Your task to perform on an android device: What is the news today? Image 0: 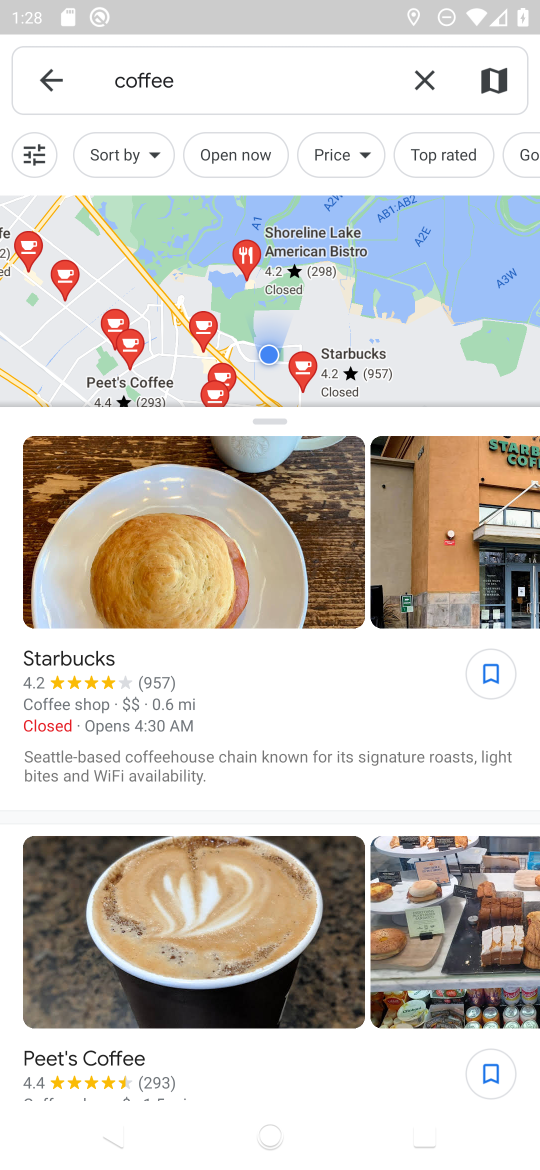
Step 0: press back button
Your task to perform on an android device: What is the news today? Image 1: 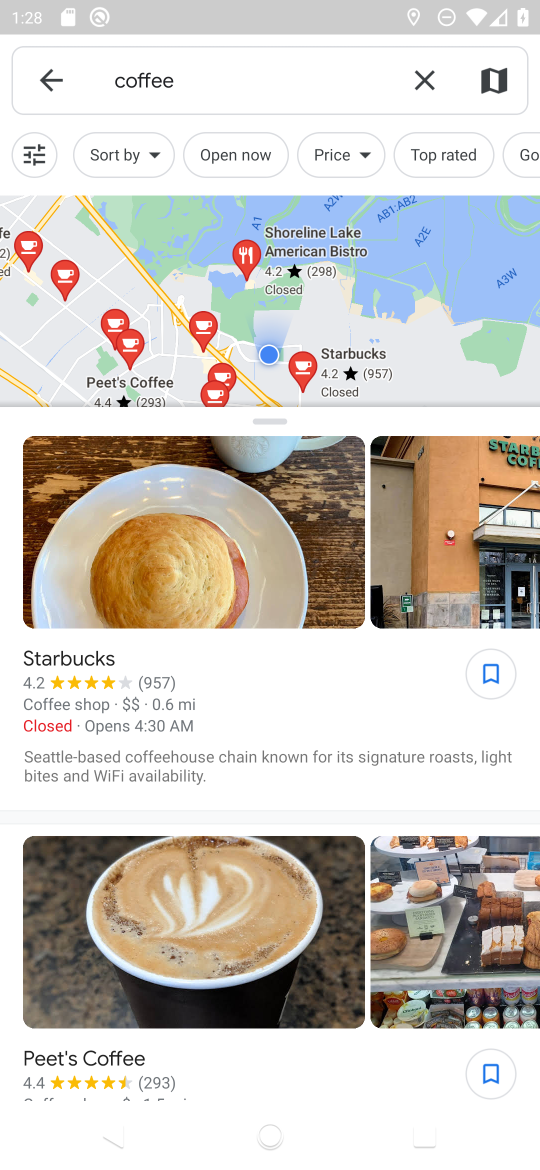
Step 1: press home button
Your task to perform on an android device: What is the news today? Image 2: 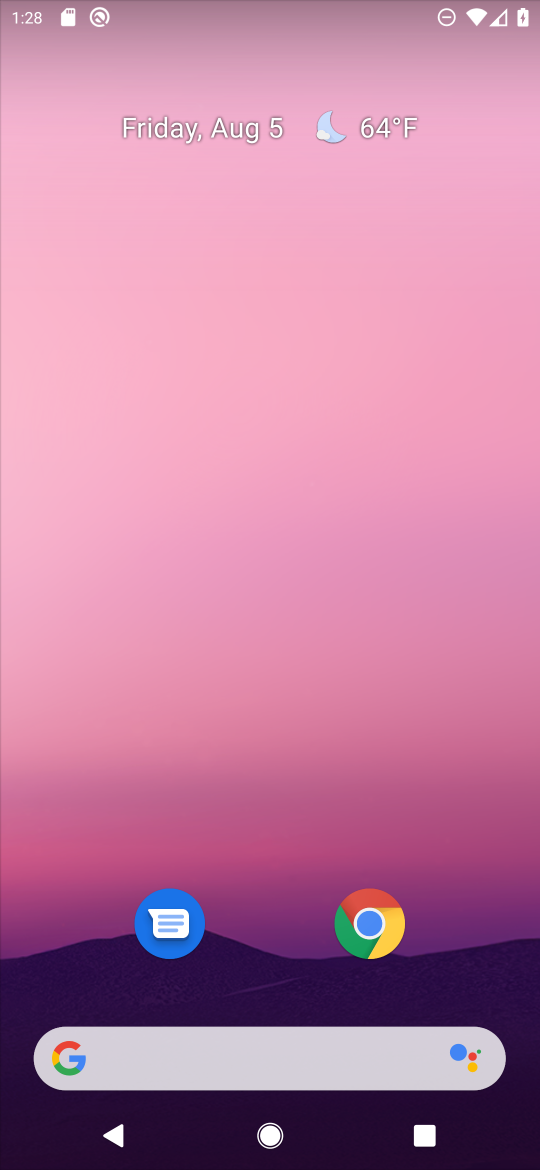
Step 2: drag from (296, 967) to (502, 39)
Your task to perform on an android device: What is the news today? Image 3: 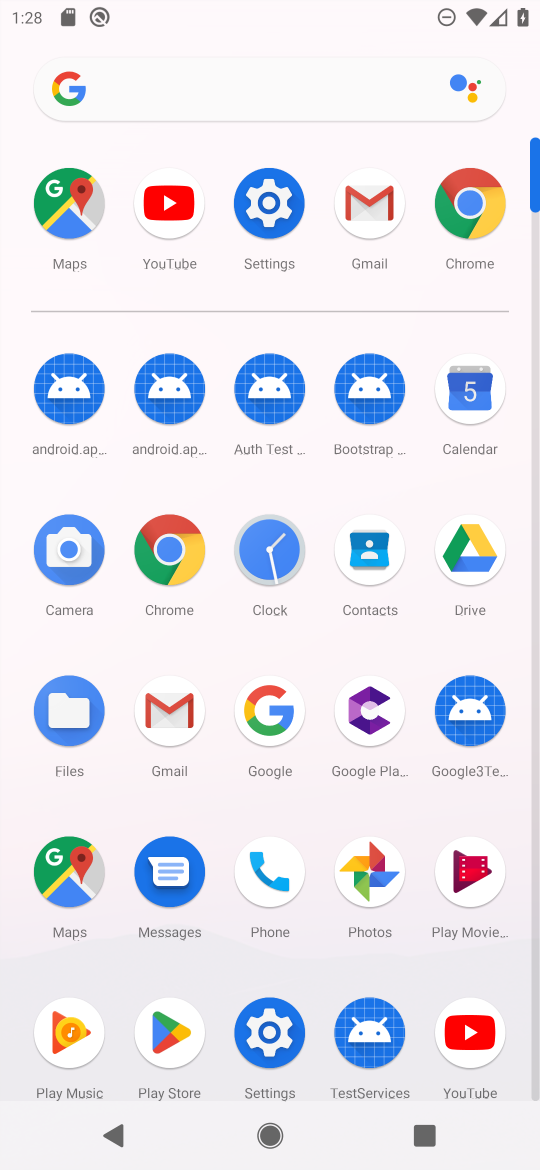
Step 3: click (263, 732)
Your task to perform on an android device: What is the news today? Image 4: 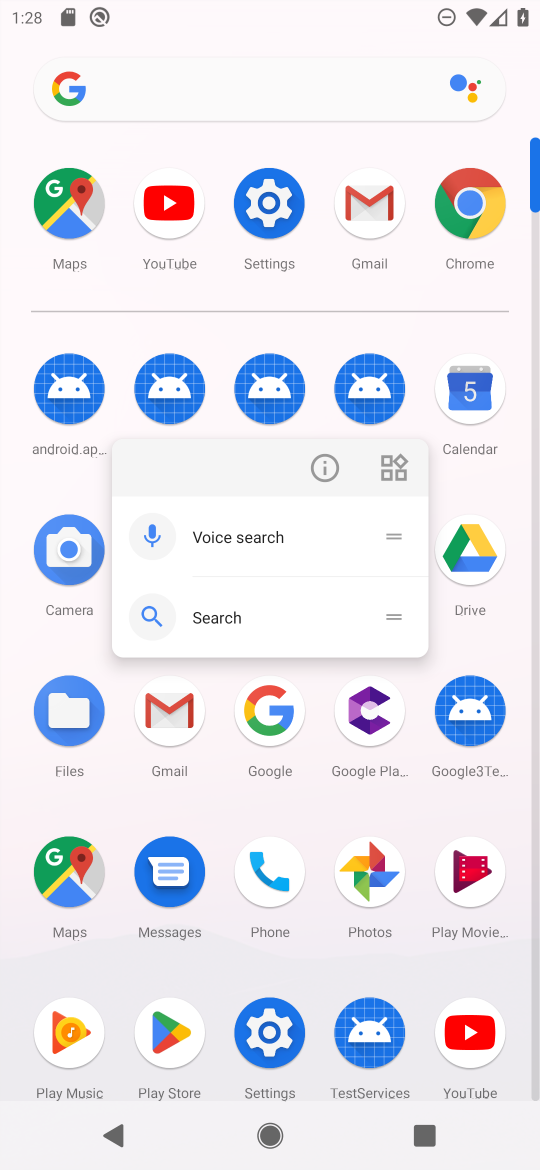
Step 4: click (240, 727)
Your task to perform on an android device: What is the news today? Image 5: 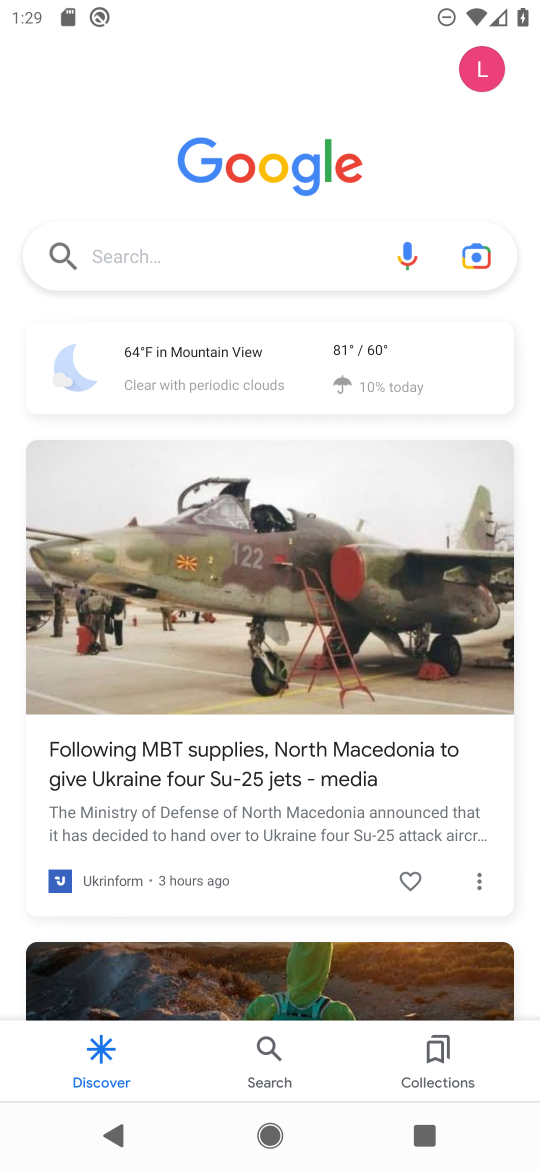
Step 5: click (243, 257)
Your task to perform on an android device: What is the news today? Image 6: 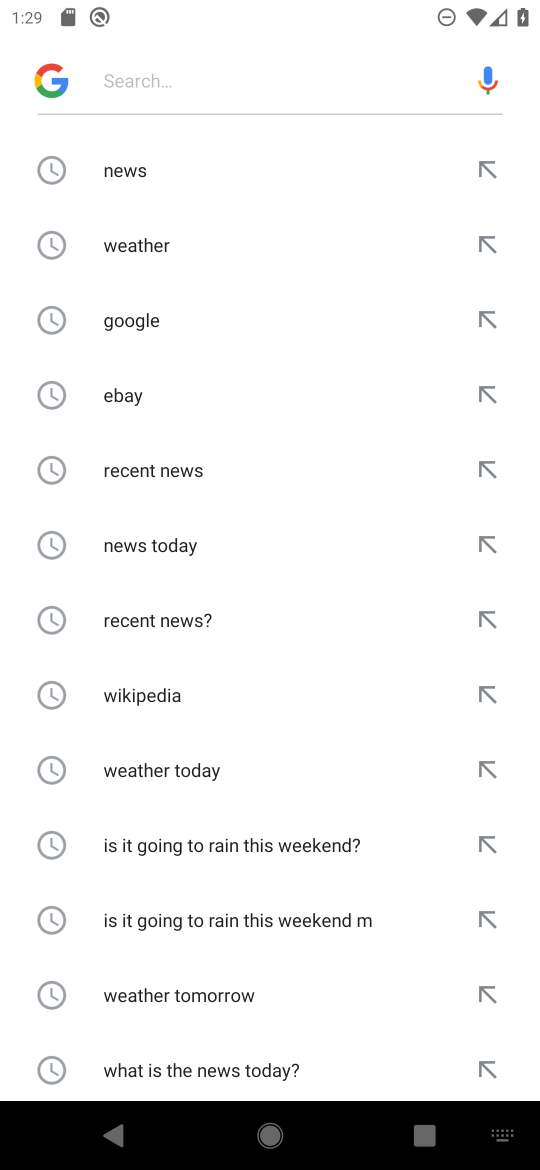
Step 6: click (135, 175)
Your task to perform on an android device: What is the news today? Image 7: 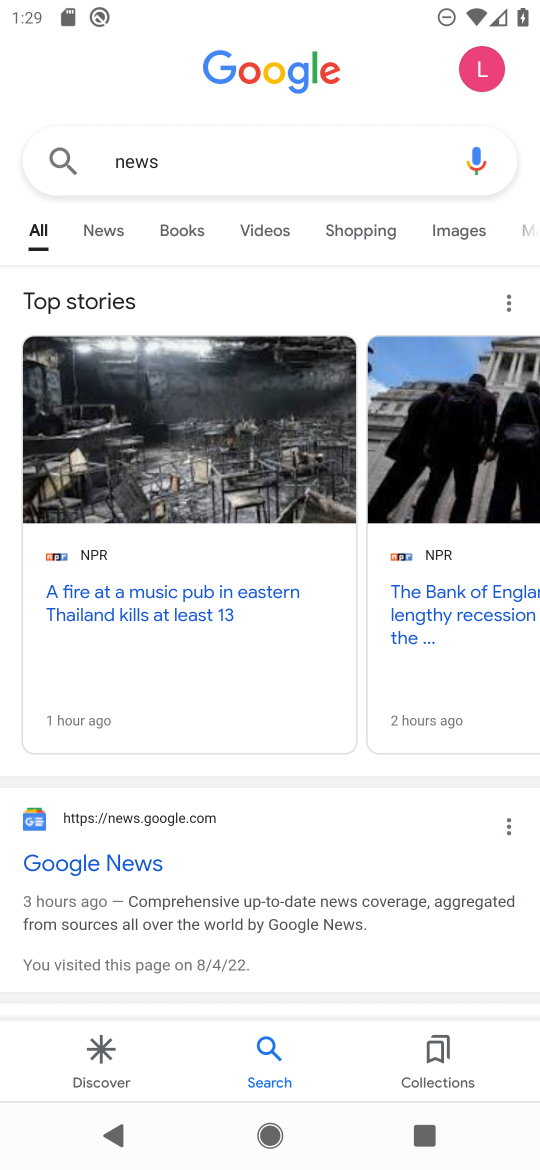
Step 7: press back button
Your task to perform on an android device: What is the news today? Image 8: 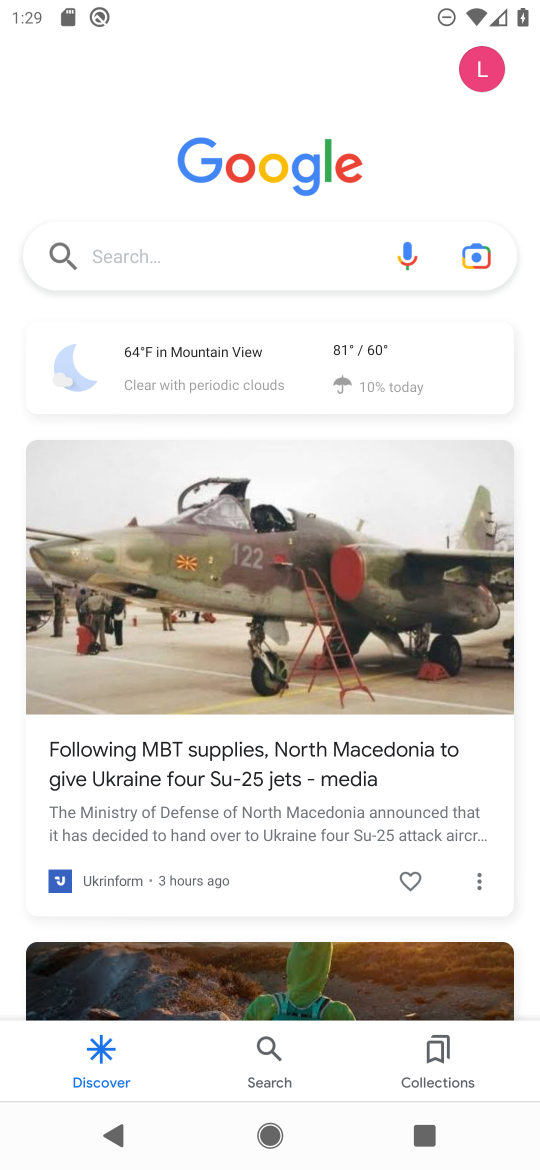
Step 8: click (230, 245)
Your task to perform on an android device: What is the news today? Image 9: 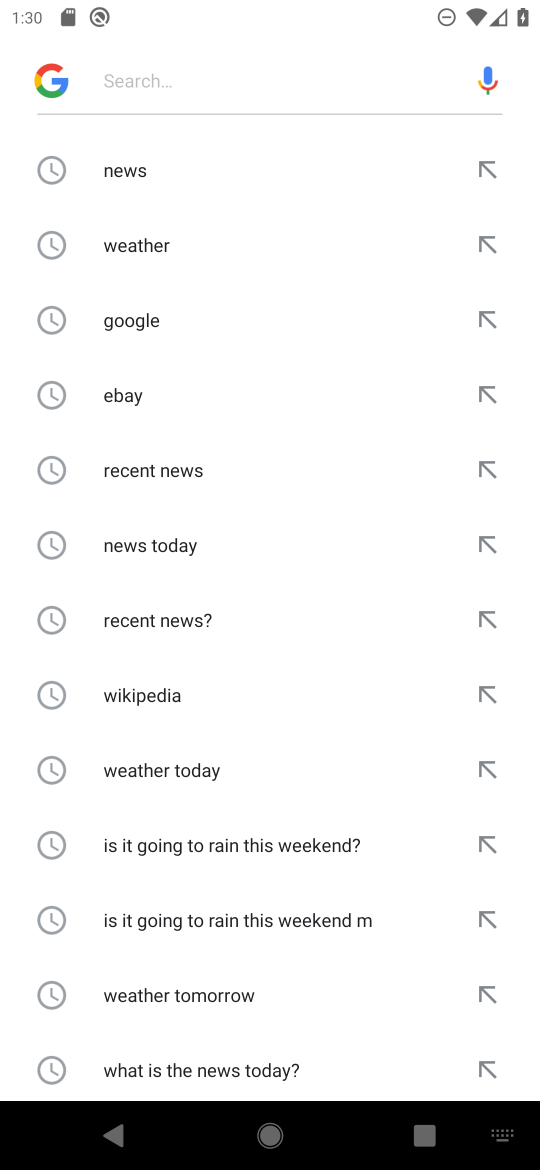
Step 9: click (74, 177)
Your task to perform on an android device: What is the news today? Image 10: 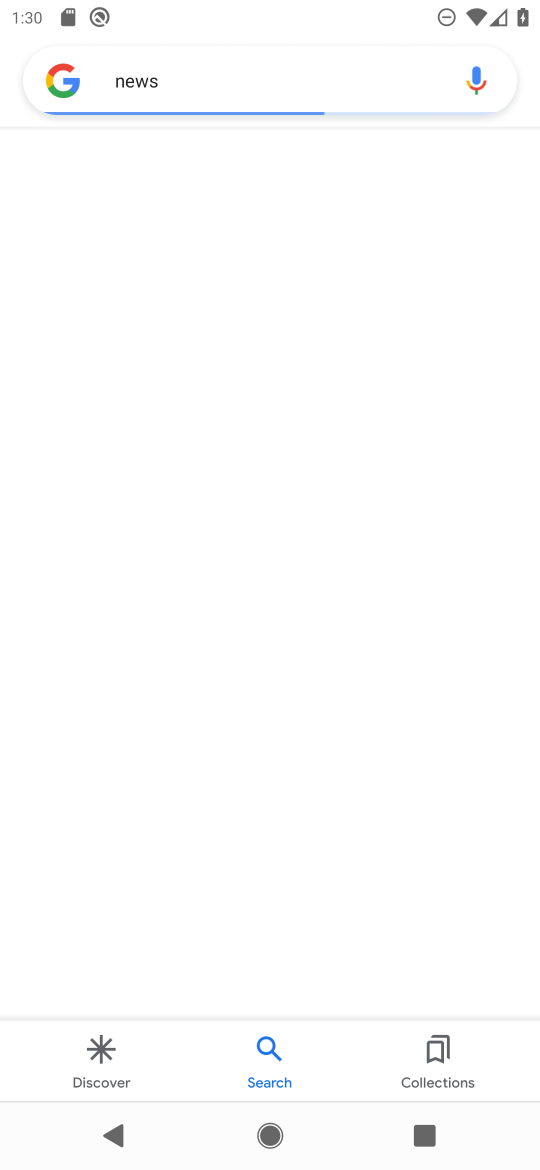
Step 10: task complete